Your task to perform on an android device: move an email to a new category in the gmail app Image 0: 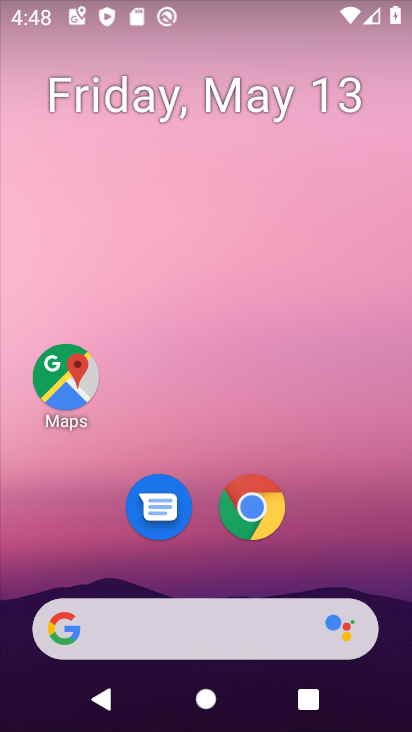
Step 0: drag from (322, 549) to (233, 51)
Your task to perform on an android device: move an email to a new category in the gmail app Image 1: 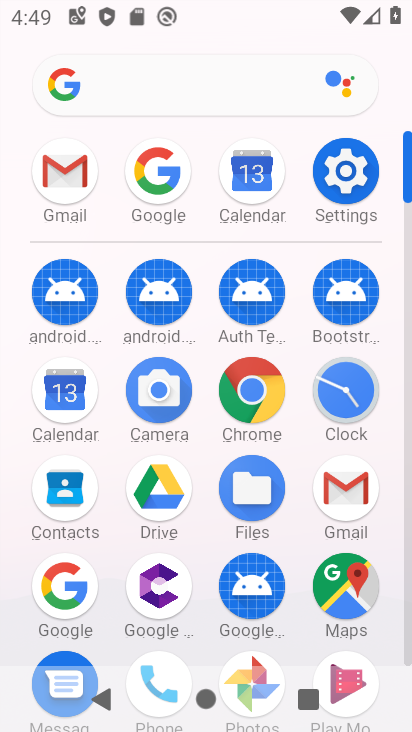
Step 1: click (349, 492)
Your task to perform on an android device: move an email to a new category in the gmail app Image 2: 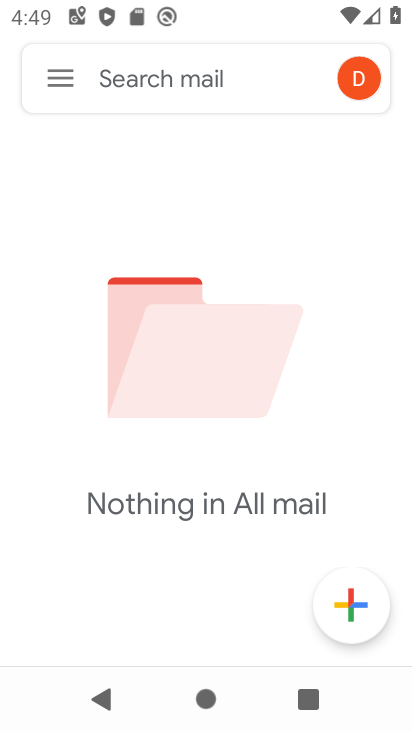
Step 2: task complete